Your task to perform on an android device: turn on the 12-hour format for clock Image 0: 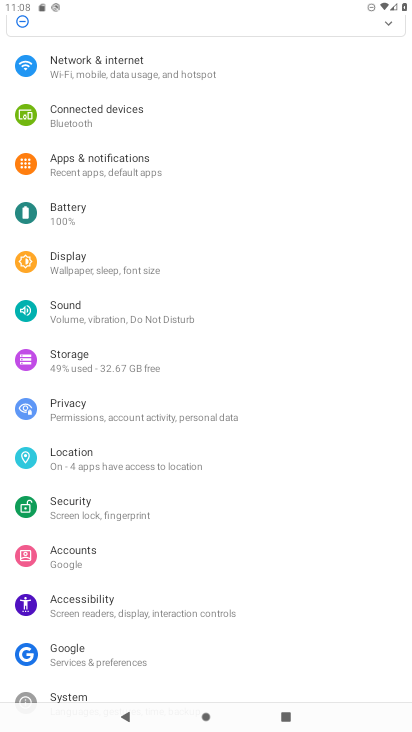
Step 0: press home button
Your task to perform on an android device: turn on the 12-hour format for clock Image 1: 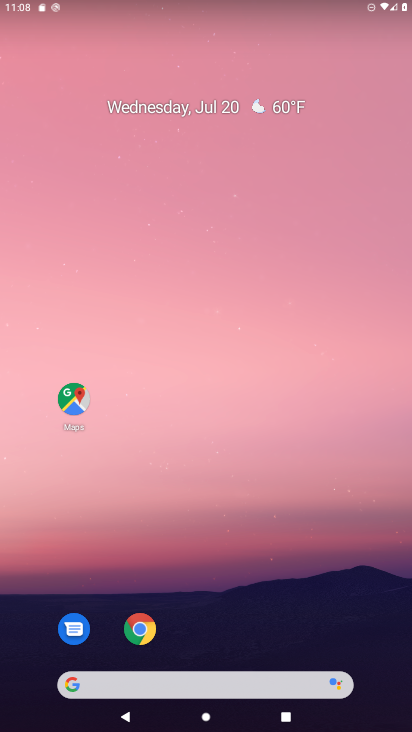
Step 1: drag from (212, 582) to (219, 170)
Your task to perform on an android device: turn on the 12-hour format for clock Image 2: 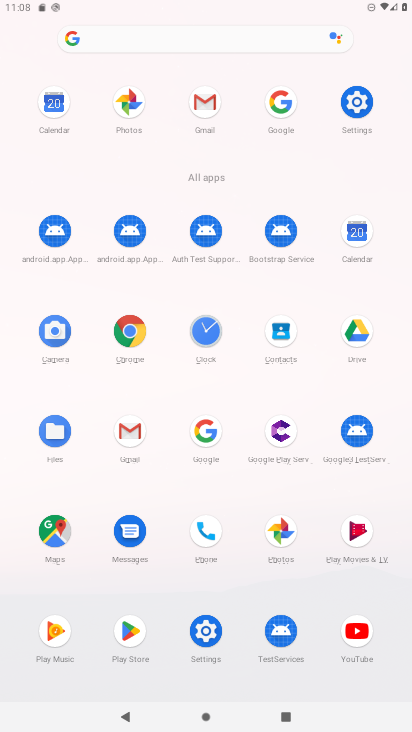
Step 2: click (219, 340)
Your task to perform on an android device: turn on the 12-hour format for clock Image 3: 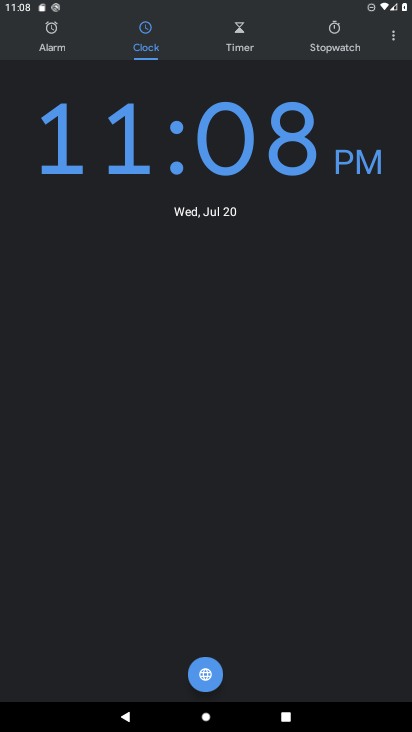
Step 3: click (394, 43)
Your task to perform on an android device: turn on the 12-hour format for clock Image 4: 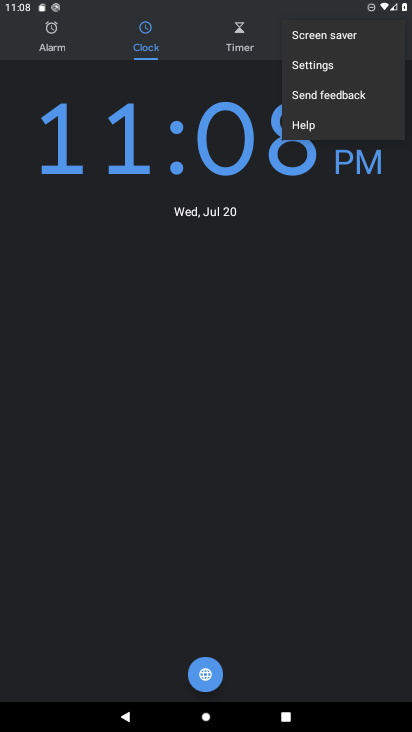
Step 4: click (315, 69)
Your task to perform on an android device: turn on the 12-hour format for clock Image 5: 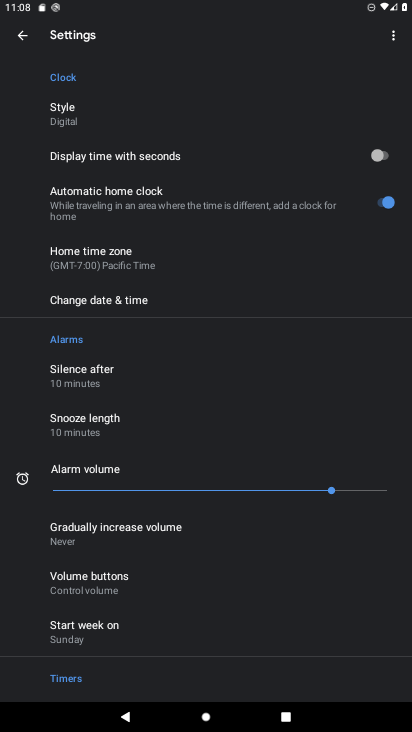
Step 5: click (163, 302)
Your task to perform on an android device: turn on the 12-hour format for clock Image 6: 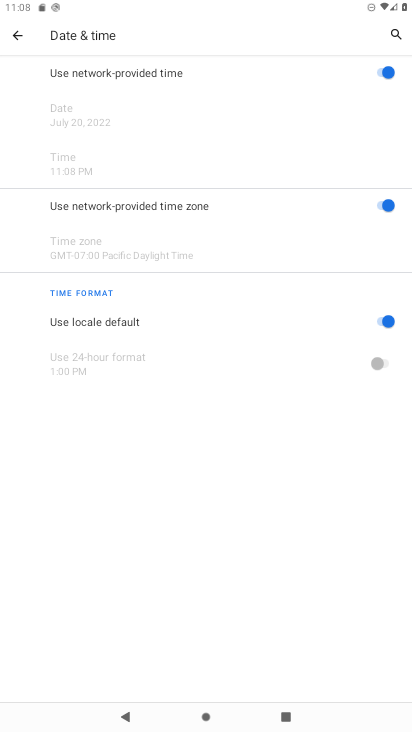
Step 6: task complete